Your task to perform on an android device: Go to sound settings Image 0: 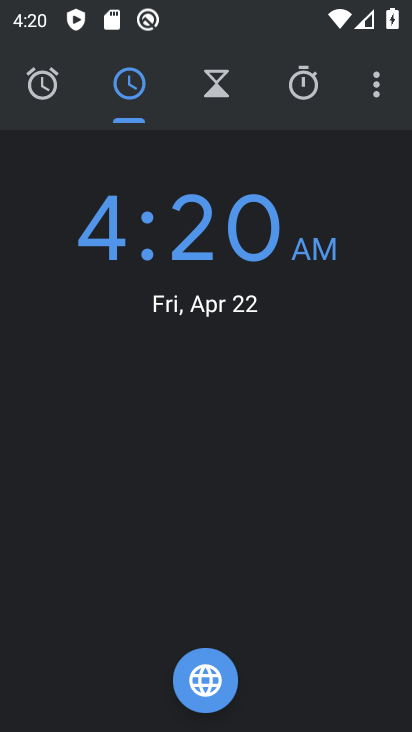
Step 0: press home button
Your task to perform on an android device: Go to sound settings Image 1: 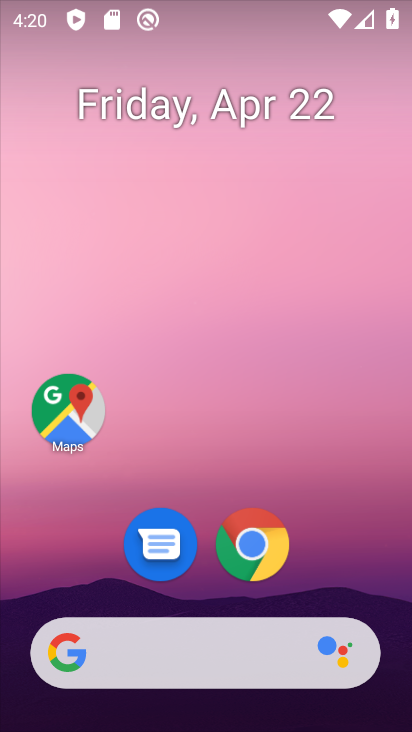
Step 1: drag from (195, 620) to (226, 176)
Your task to perform on an android device: Go to sound settings Image 2: 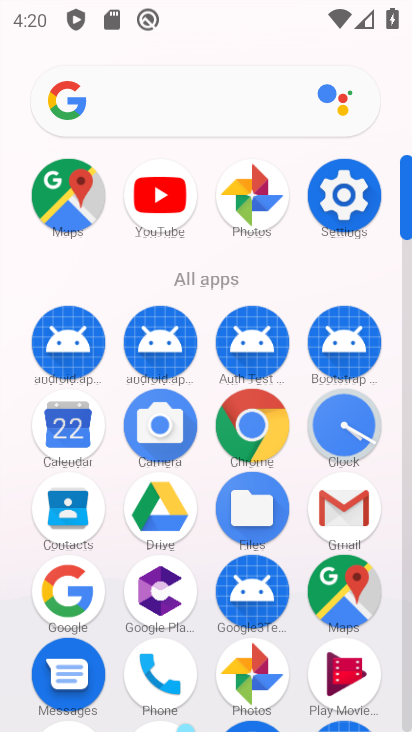
Step 2: click (347, 197)
Your task to perform on an android device: Go to sound settings Image 3: 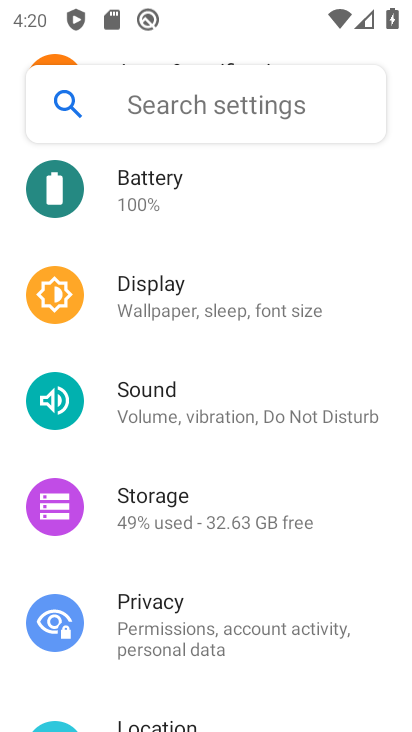
Step 3: click (166, 386)
Your task to perform on an android device: Go to sound settings Image 4: 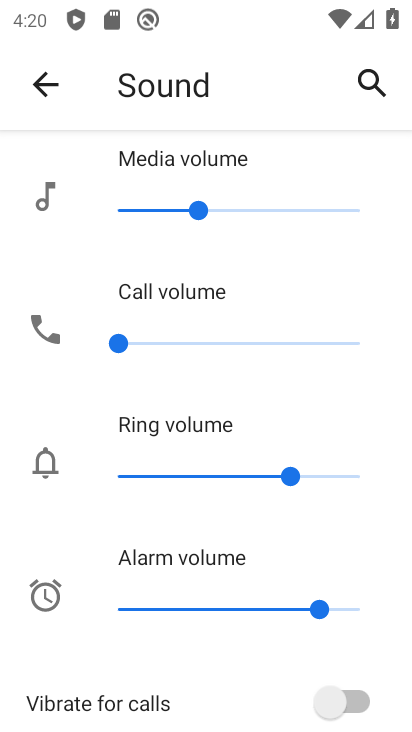
Step 4: task complete